Your task to perform on an android device: What's a good restaurant in Portland? Image 0: 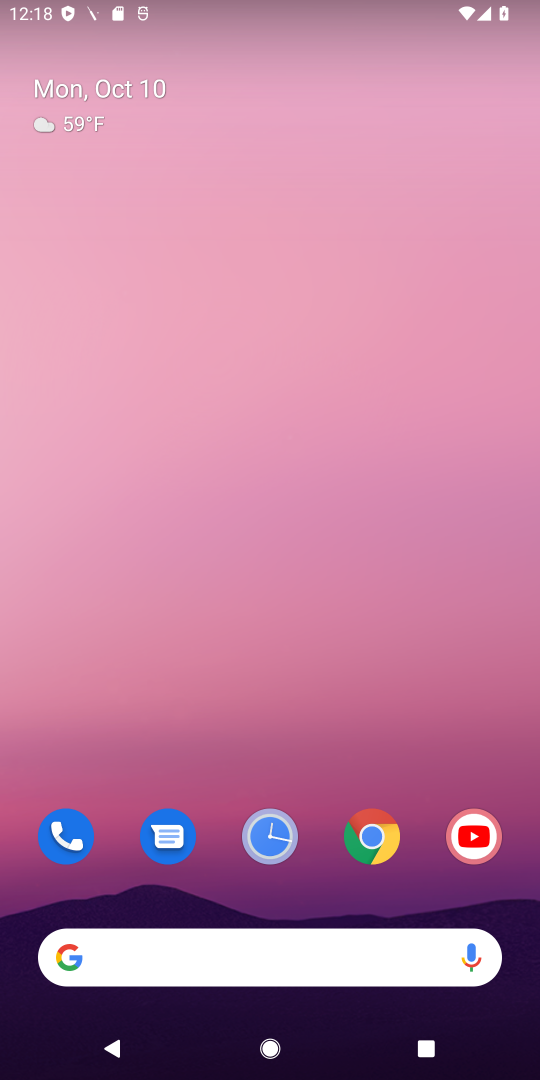
Step 0: click (388, 847)
Your task to perform on an android device: What's a good restaurant in Portland? Image 1: 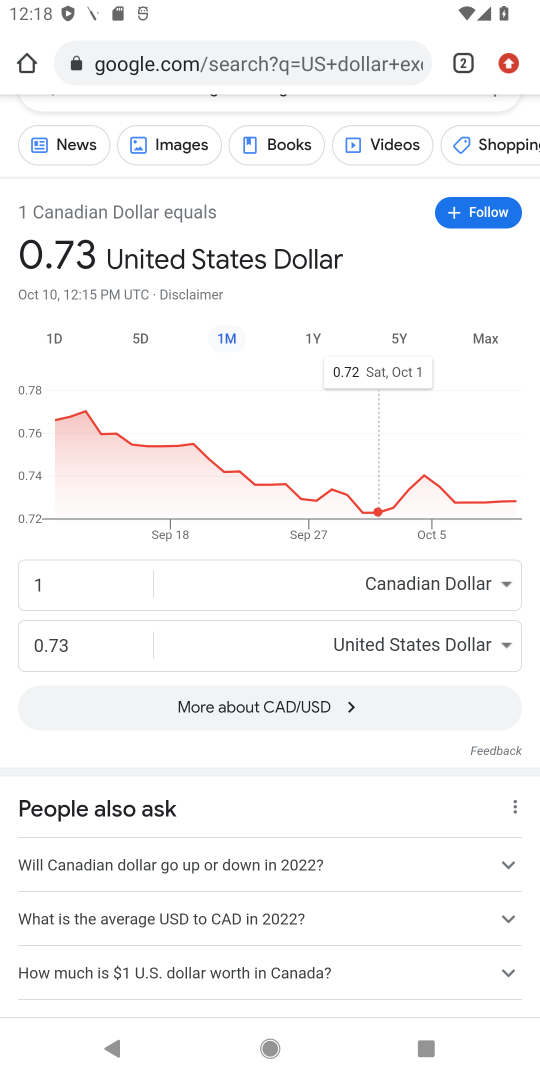
Step 1: drag from (443, 1069) to (428, 801)
Your task to perform on an android device: What's a good restaurant in Portland? Image 2: 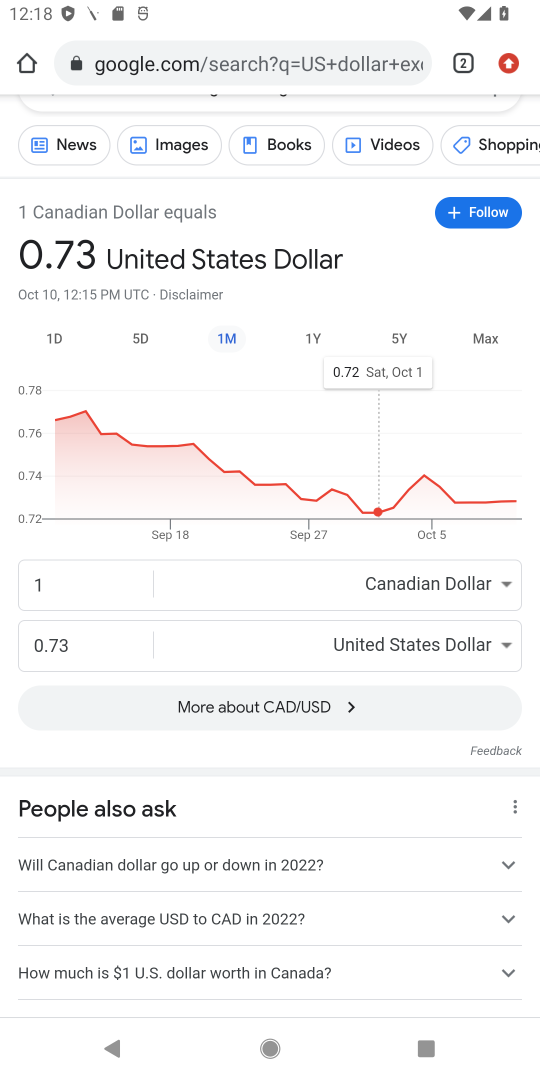
Step 2: click (291, 65)
Your task to perform on an android device: What's a good restaurant in Portland? Image 3: 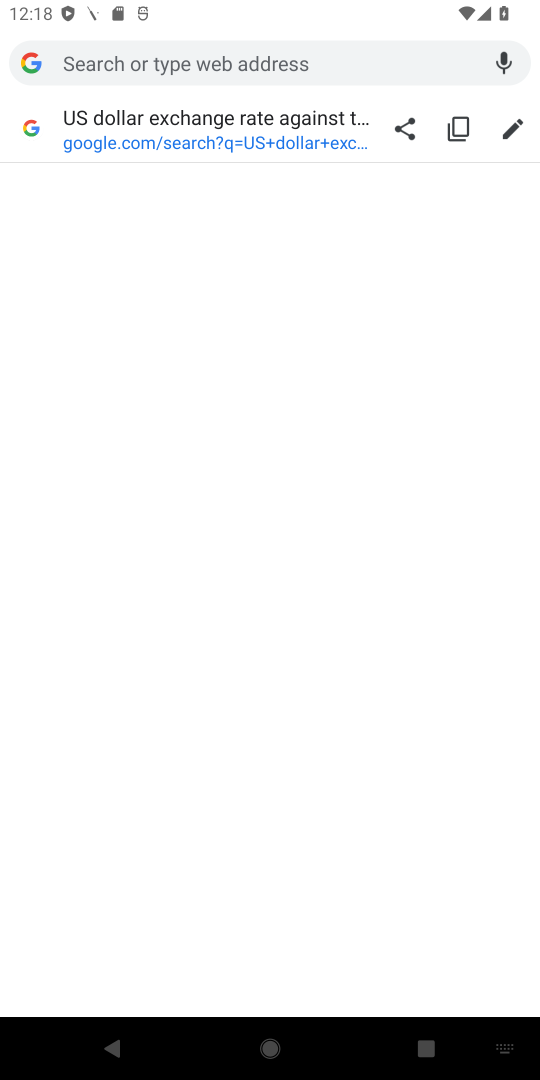
Step 3: type "good restaurant in Portland"
Your task to perform on an android device: What's a good restaurant in Portland? Image 4: 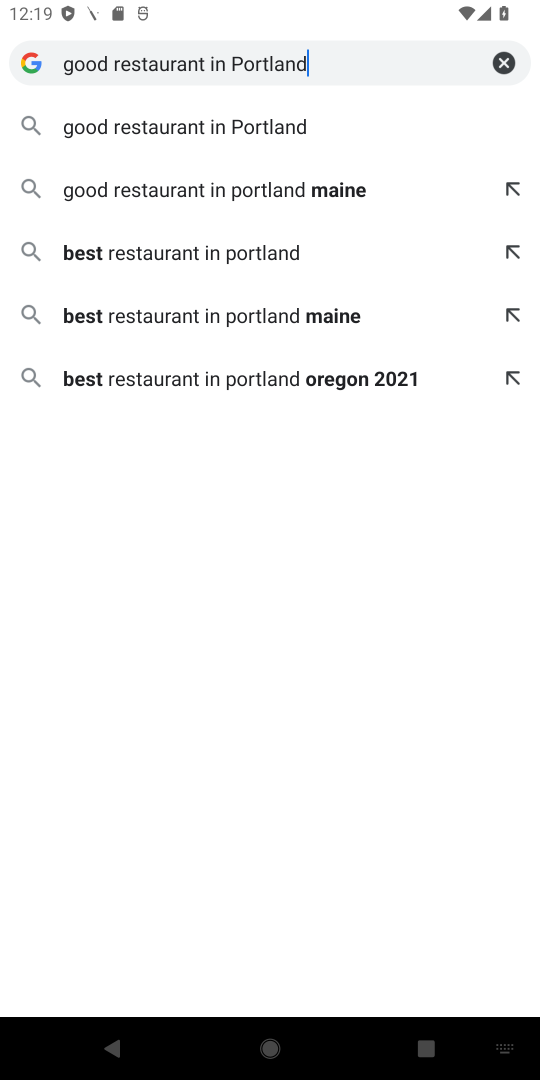
Step 4: click (315, 129)
Your task to perform on an android device: What's a good restaurant in Portland? Image 5: 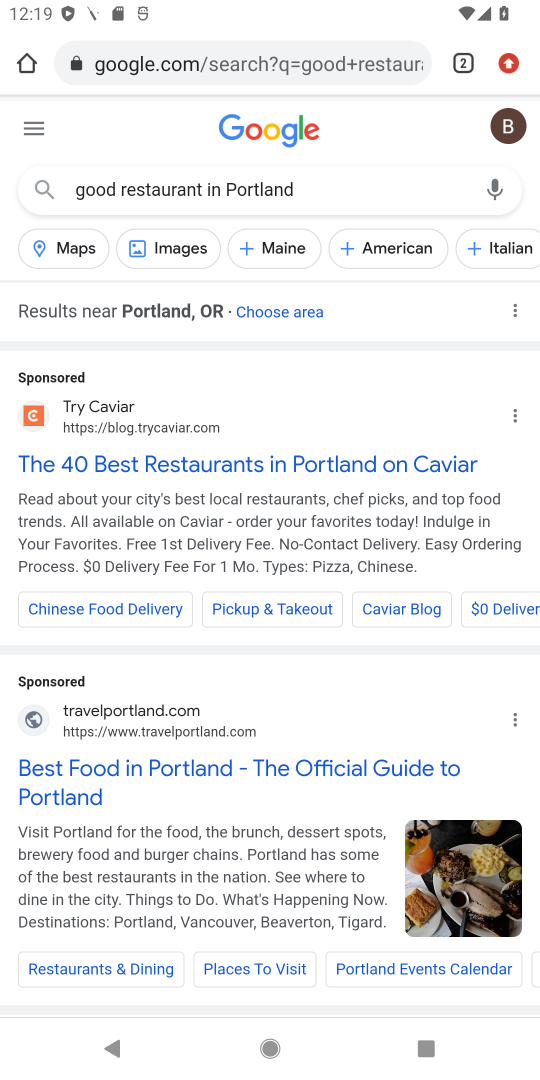
Step 5: task complete